Your task to perform on an android device: change alarm snooze length Image 0: 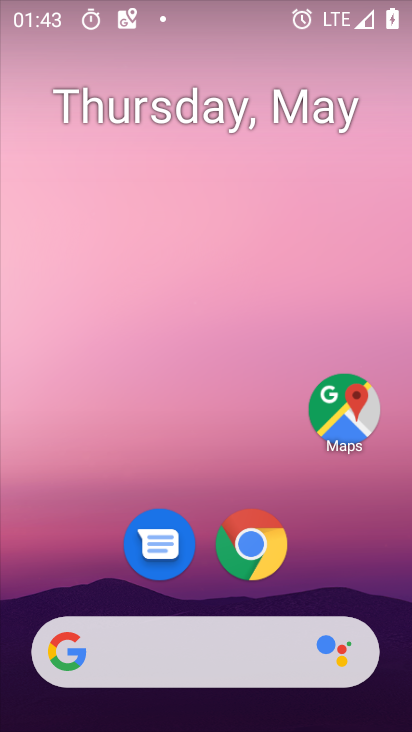
Step 0: drag from (374, 569) to (400, 217)
Your task to perform on an android device: change alarm snooze length Image 1: 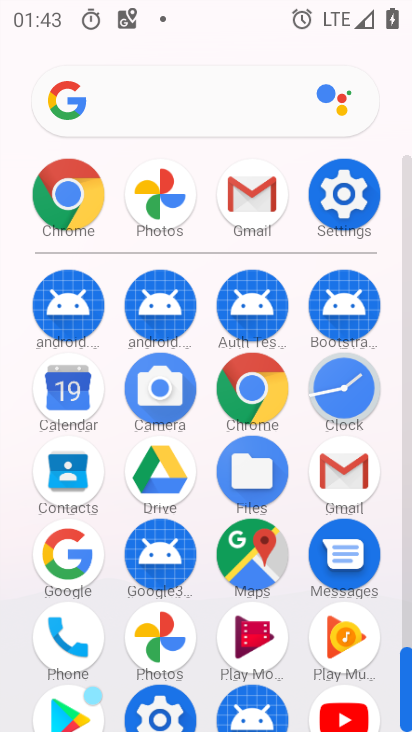
Step 1: click (360, 391)
Your task to perform on an android device: change alarm snooze length Image 2: 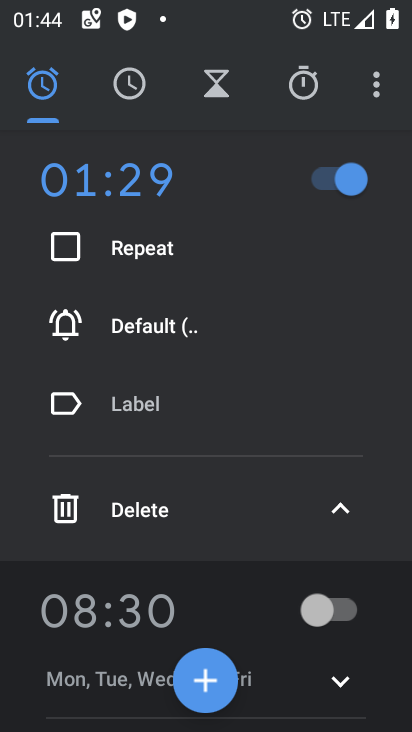
Step 2: click (375, 96)
Your task to perform on an android device: change alarm snooze length Image 3: 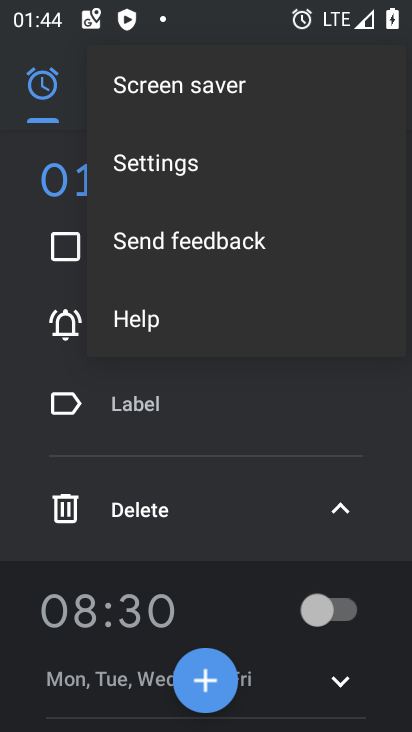
Step 3: click (218, 170)
Your task to perform on an android device: change alarm snooze length Image 4: 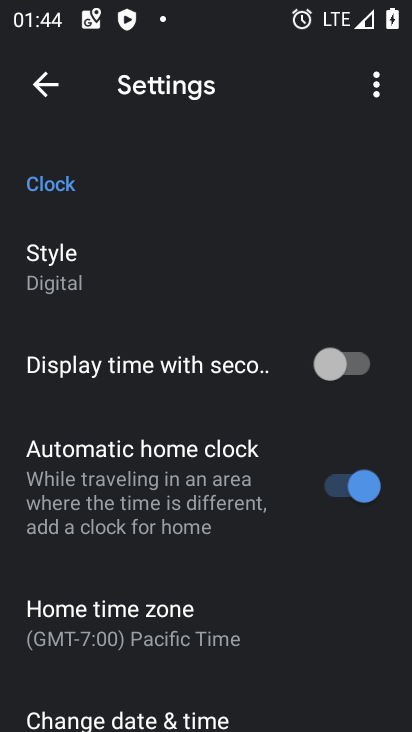
Step 4: drag from (239, 579) to (277, 384)
Your task to perform on an android device: change alarm snooze length Image 5: 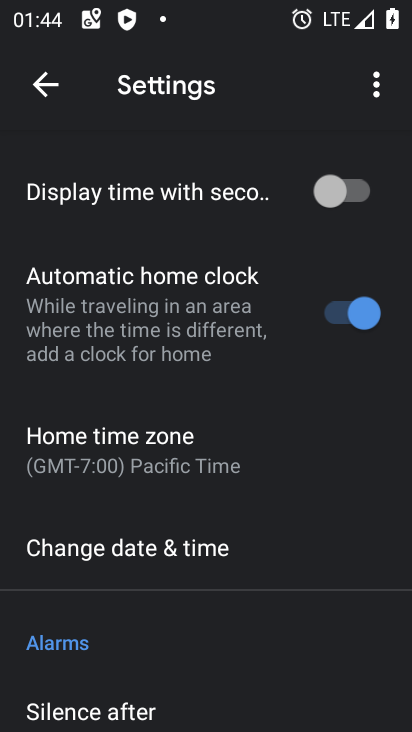
Step 5: drag from (291, 579) to (292, 388)
Your task to perform on an android device: change alarm snooze length Image 6: 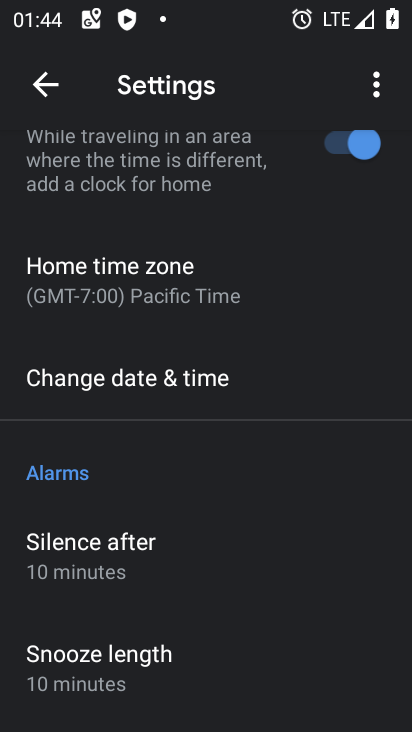
Step 6: drag from (302, 561) to (283, 400)
Your task to perform on an android device: change alarm snooze length Image 7: 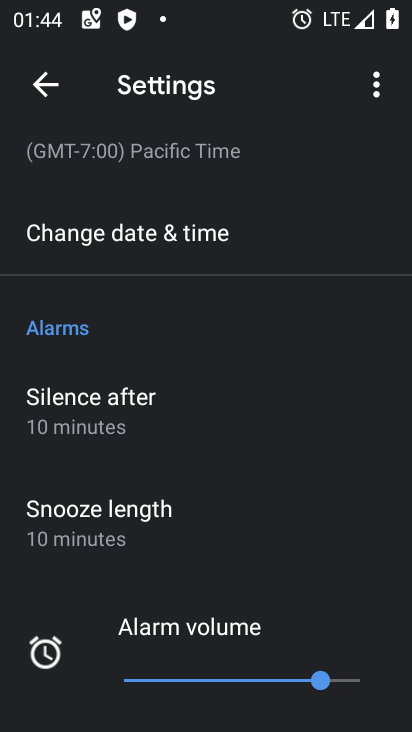
Step 7: drag from (319, 518) to (319, 356)
Your task to perform on an android device: change alarm snooze length Image 8: 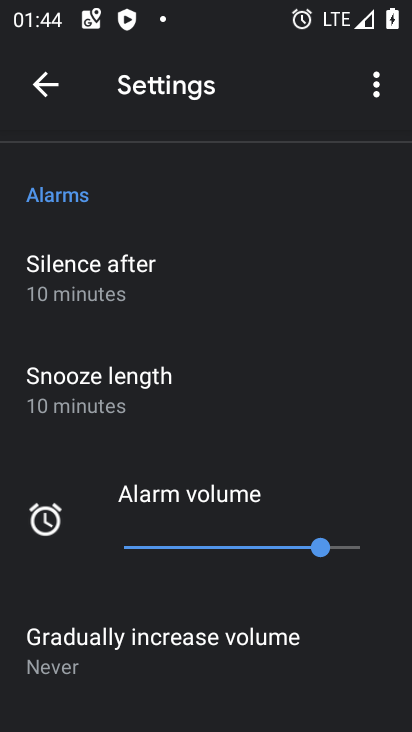
Step 8: drag from (332, 629) to (347, 457)
Your task to perform on an android device: change alarm snooze length Image 9: 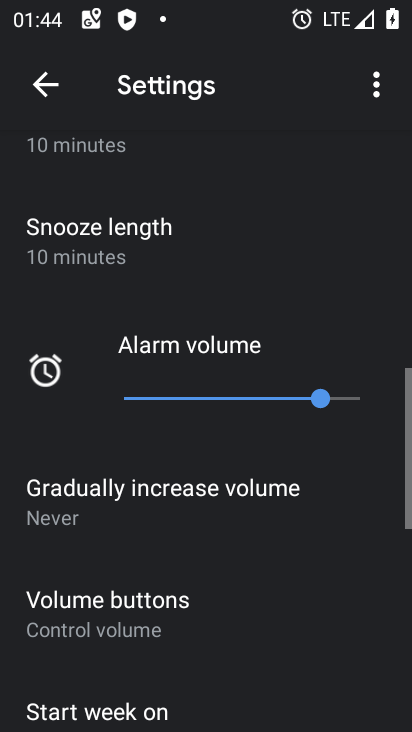
Step 9: drag from (340, 635) to (335, 517)
Your task to perform on an android device: change alarm snooze length Image 10: 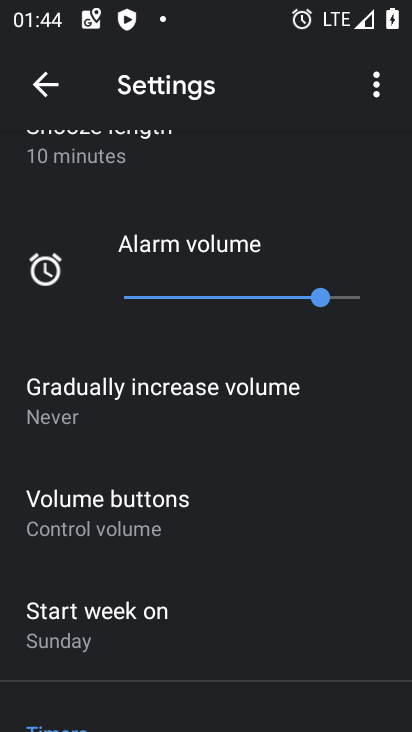
Step 10: drag from (310, 613) to (310, 396)
Your task to perform on an android device: change alarm snooze length Image 11: 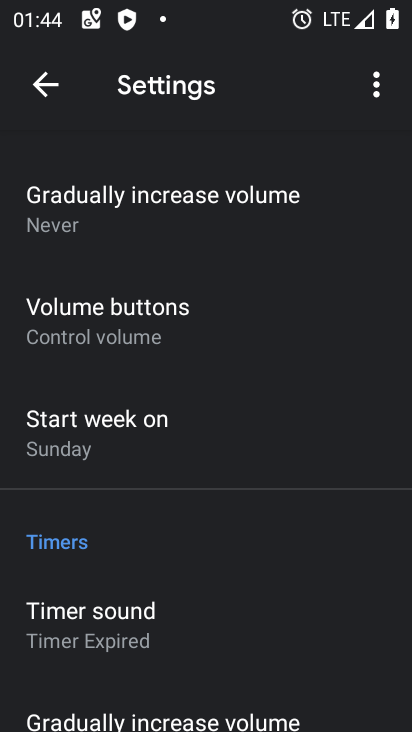
Step 11: drag from (329, 610) to (334, 502)
Your task to perform on an android device: change alarm snooze length Image 12: 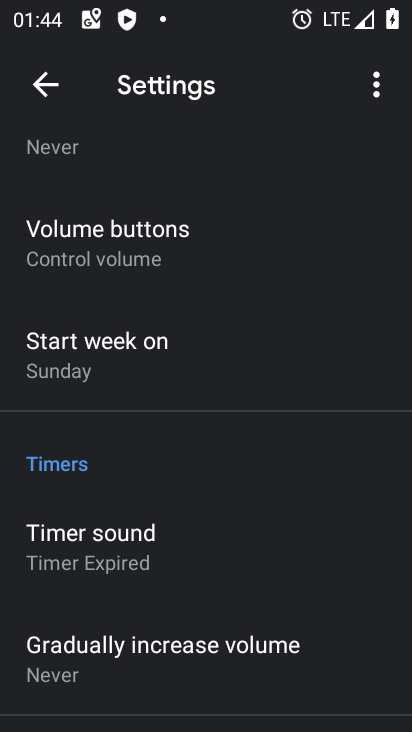
Step 12: drag from (334, 643) to (342, 494)
Your task to perform on an android device: change alarm snooze length Image 13: 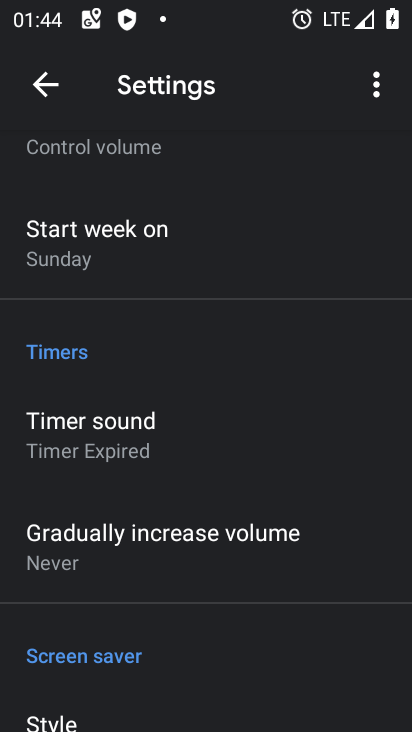
Step 13: drag from (323, 644) to (319, 526)
Your task to perform on an android device: change alarm snooze length Image 14: 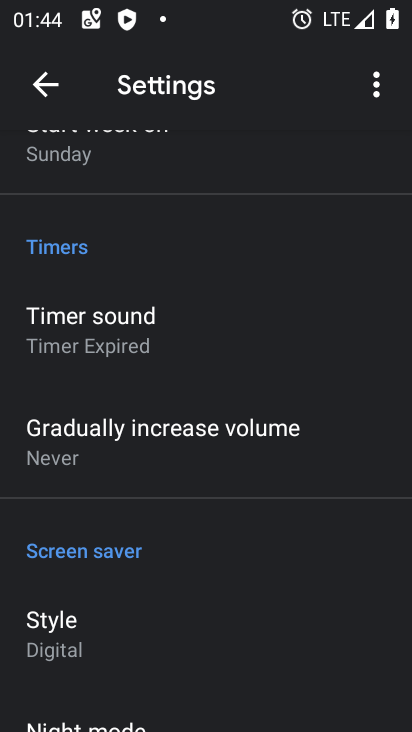
Step 14: drag from (306, 661) to (319, 502)
Your task to perform on an android device: change alarm snooze length Image 15: 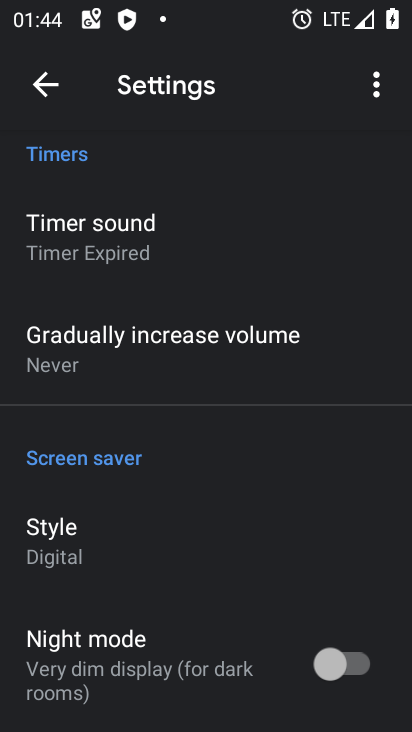
Step 15: drag from (259, 657) to (258, 494)
Your task to perform on an android device: change alarm snooze length Image 16: 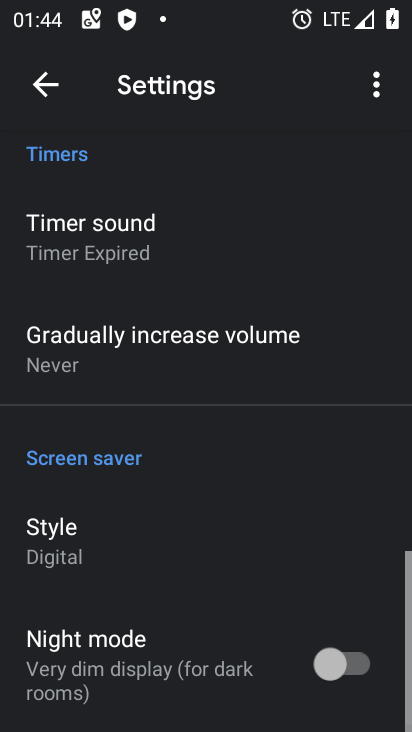
Step 16: drag from (261, 455) to (259, 604)
Your task to perform on an android device: change alarm snooze length Image 17: 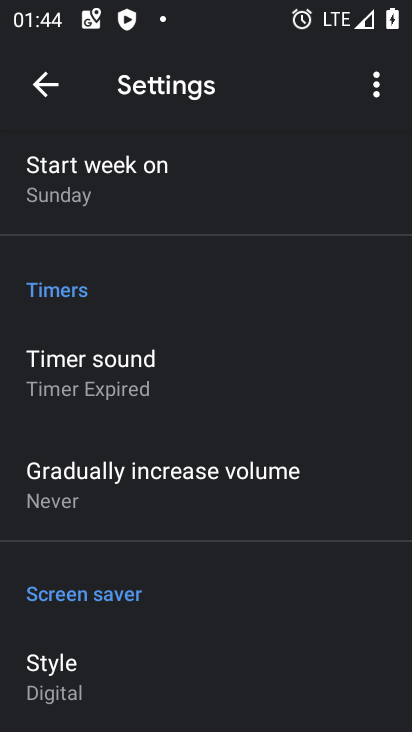
Step 17: drag from (250, 450) to (241, 584)
Your task to perform on an android device: change alarm snooze length Image 18: 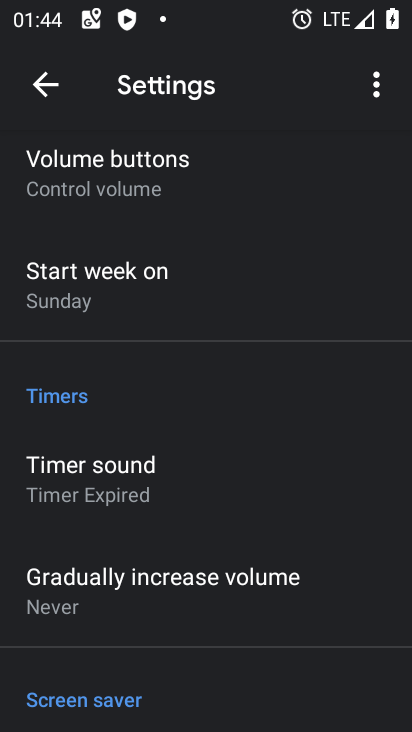
Step 18: drag from (263, 411) to (253, 529)
Your task to perform on an android device: change alarm snooze length Image 19: 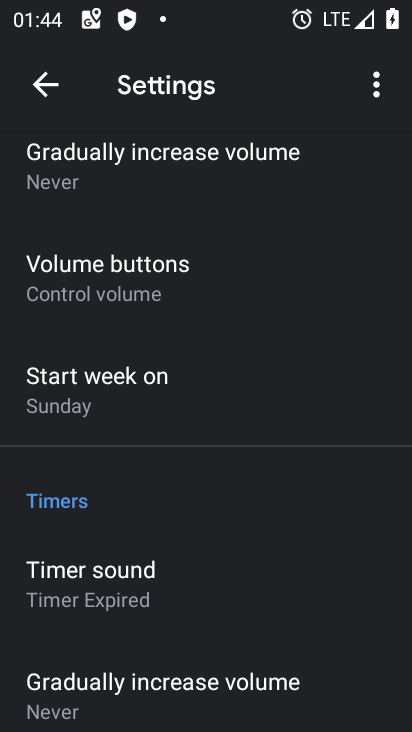
Step 19: drag from (302, 311) to (283, 479)
Your task to perform on an android device: change alarm snooze length Image 20: 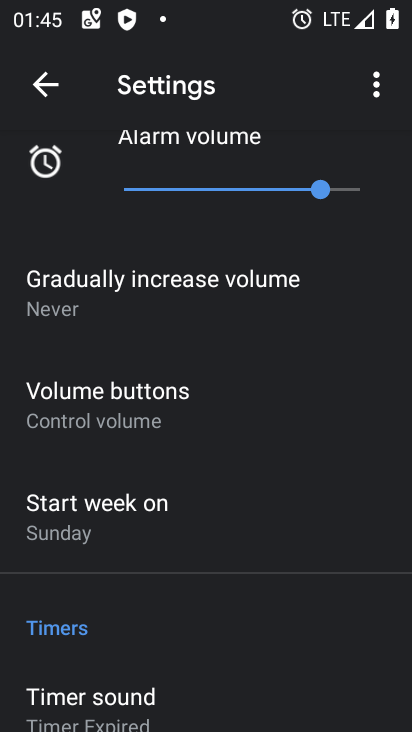
Step 20: drag from (319, 281) to (318, 436)
Your task to perform on an android device: change alarm snooze length Image 21: 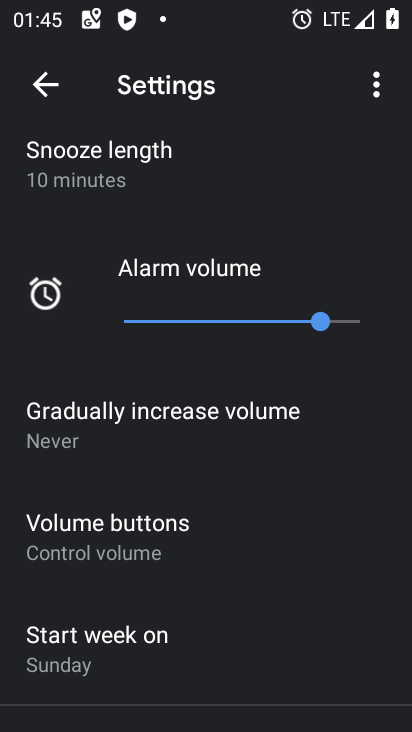
Step 21: drag from (289, 261) to (294, 443)
Your task to perform on an android device: change alarm snooze length Image 22: 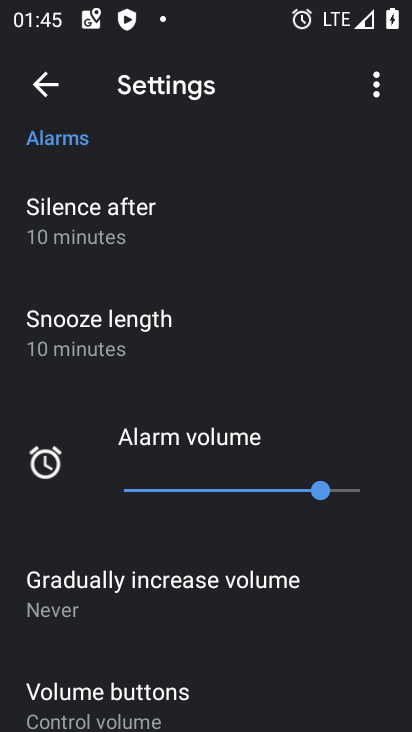
Step 22: click (170, 327)
Your task to perform on an android device: change alarm snooze length Image 23: 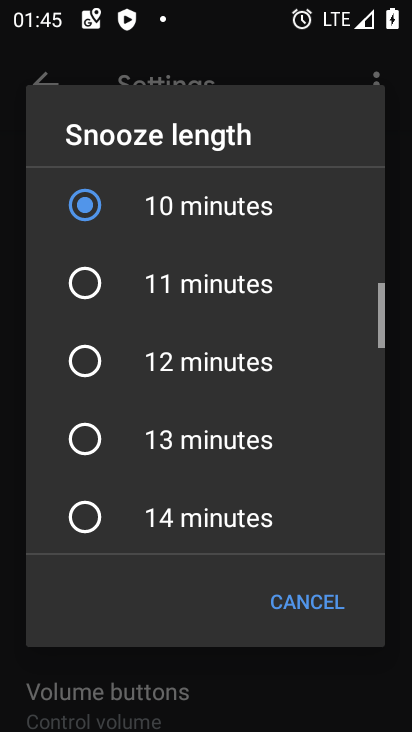
Step 23: click (189, 370)
Your task to perform on an android device: change alarm snooze length Image 24: 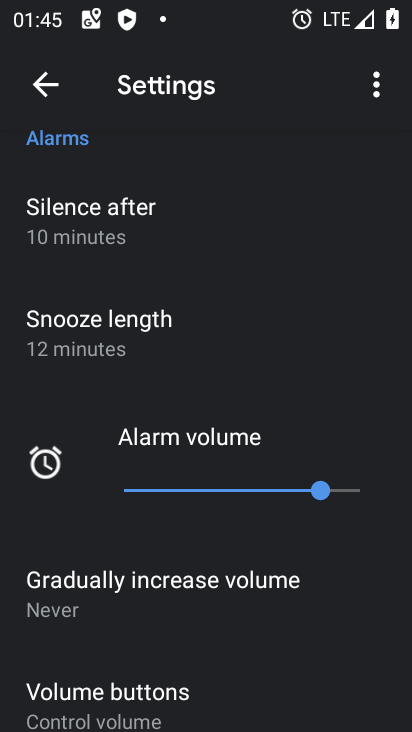
Step 24: task complete